Your task to perform on an android device: delete a single message in the gmail app Image 0: 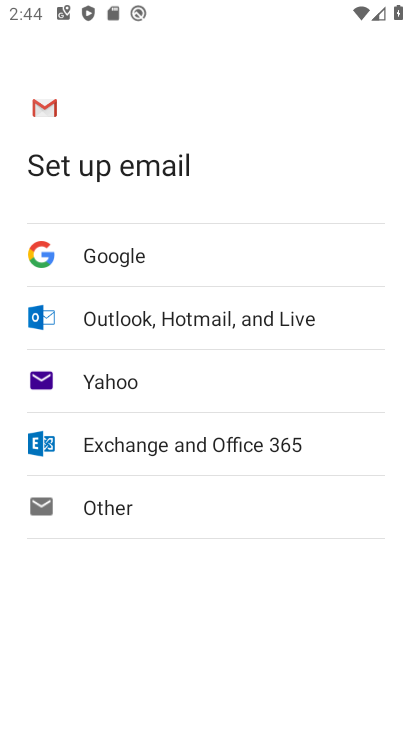
Step 0: press back button
Your task to perform on an android device: delete a single message in the gmail app Image 1: 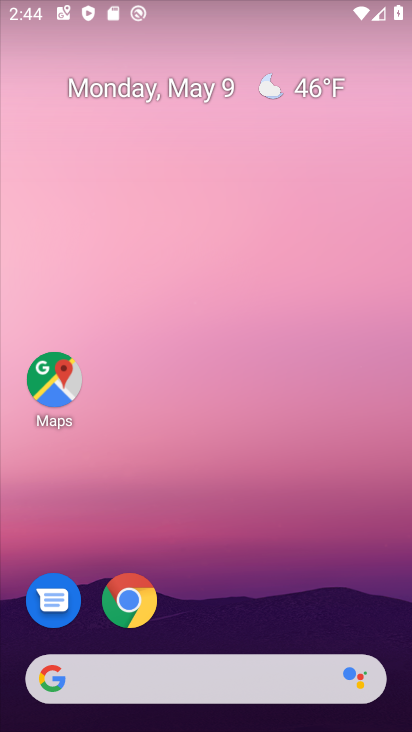
Step 1: drag from (259, 576) to (328, 0)
Your task to perform on an android device: delete a single message in the gmail app Image 2: 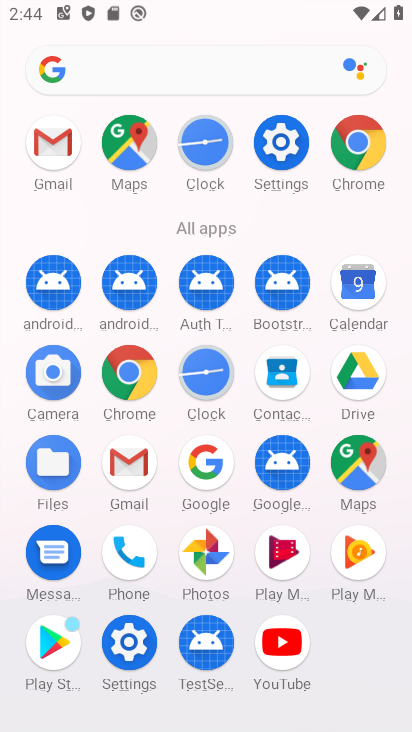
Step 2: click (50, 129)
Your task to perform on an android device: delete a single message in the gmail app Image 3: 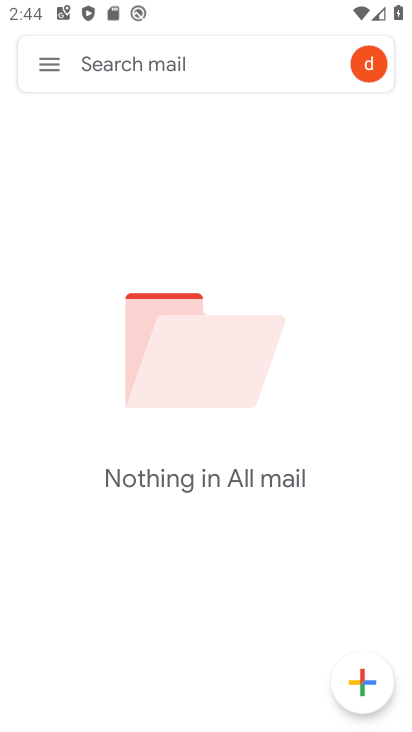
Step 3: task complete